Your task to perform on an android device: What's the weather today? Image 0: 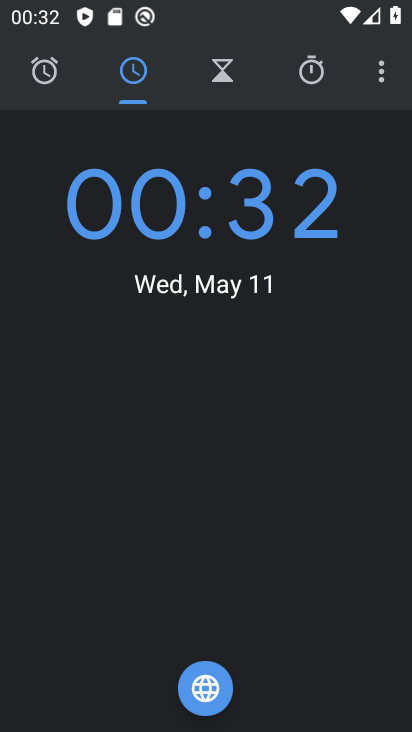
Step 0: press home button
Your task to perform on an android device: What's the weather today? Image 1: 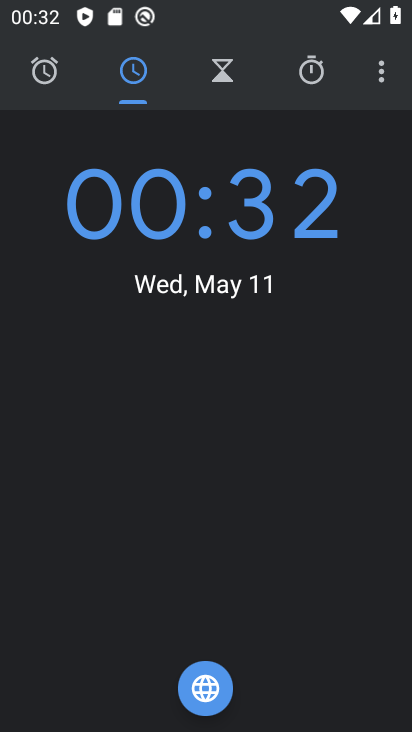
Step 1: press home button
Your task to perform on an android device: What's the weather today? Image 2: 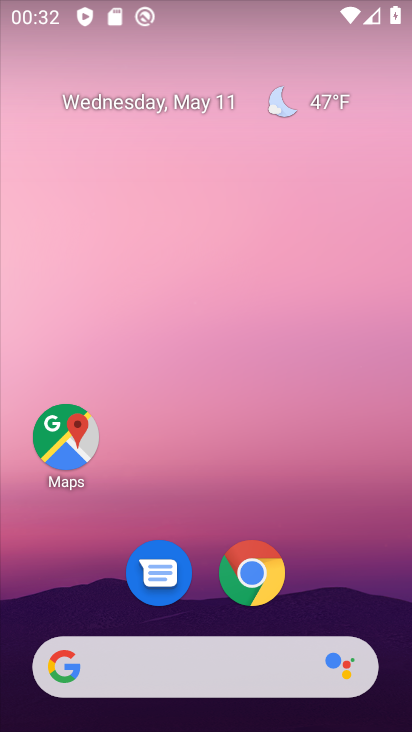
Step 2: click (258, 582)
Your task to perform on an android device: What's the weather today? Image 3: 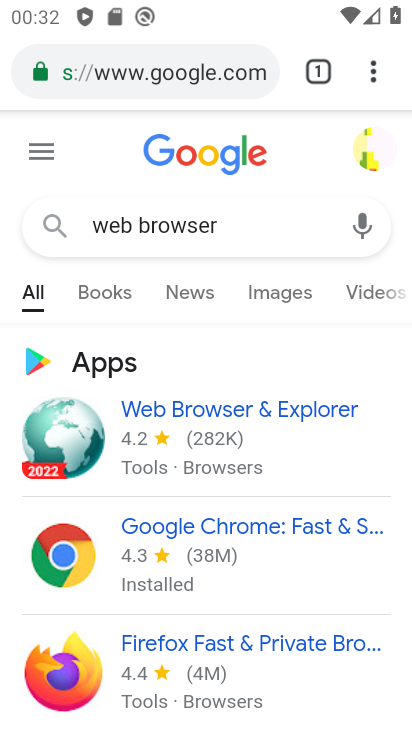
Step 3: click (303, 207)
Your task to perform on an android device: What's the weather today? Image 4: 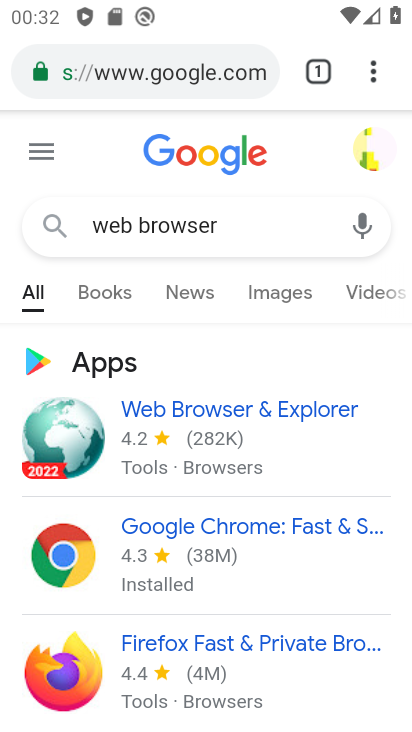
Step 4: click (303, 207)
Your task to perform on an android device: What's the weather today? Image 5: 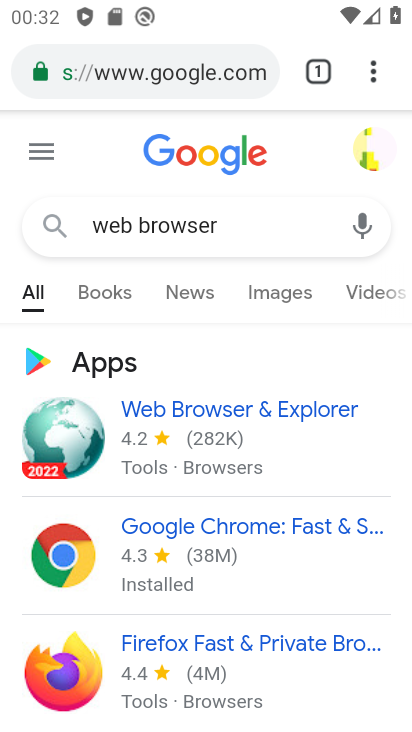
Step 5: click (261, 229)
Your task to perform on an android device: What's the weather today? Image 6: 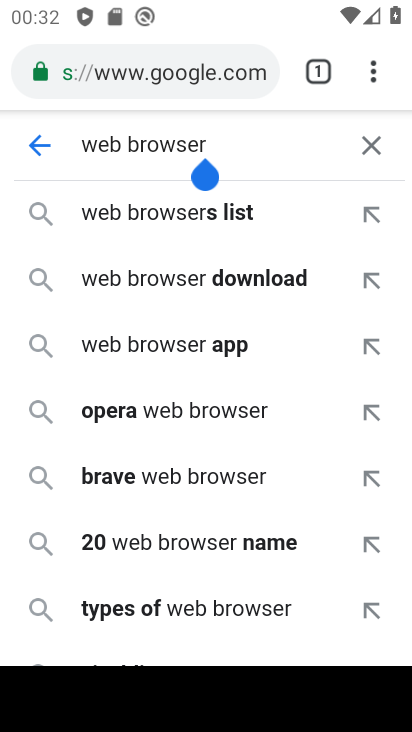
Step 6: click (374, 152)
Your task to perform on an android device: What's the weather today? Image 7: 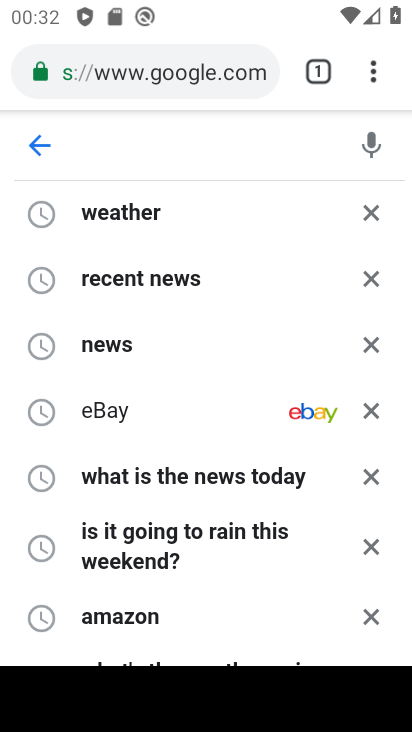
Step 7: type "What's the weather today?"
Your task to perform on an android device: What's the weather today? Image 8: 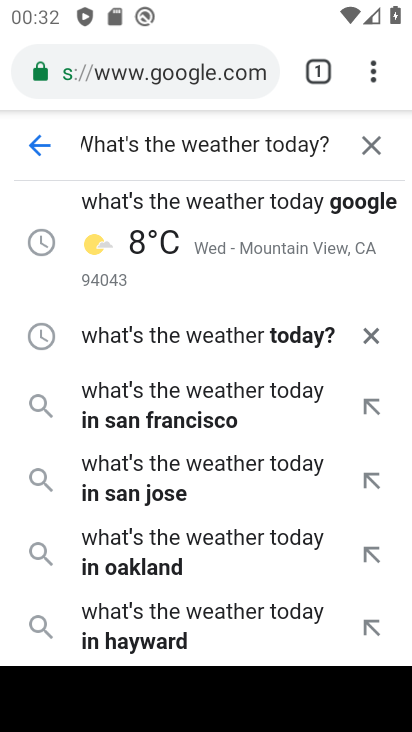
Step 8: click (146, 205)
Your task to perform on an android device: What's the weather today? Image 9: 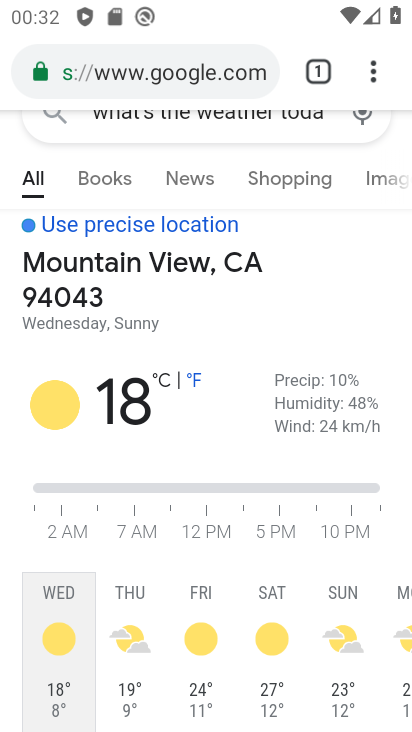
Step 9: task complete